Your task to perform on an android device: What's the weather going to be this weekend? Image 0: 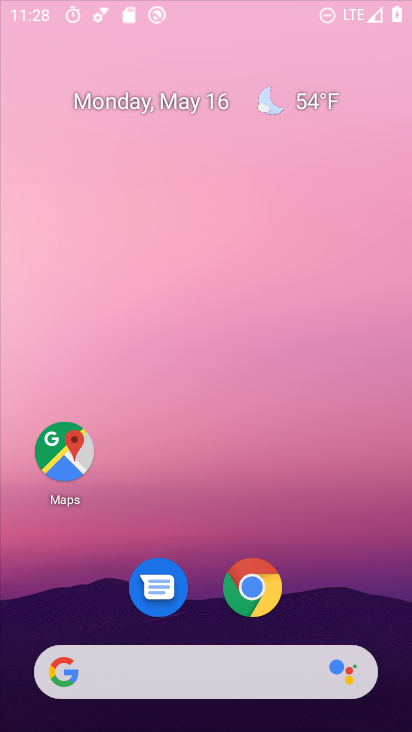
Step 0: click (213, 78)
Your task to perform on an android device: What's the weather going to be this weekend? Image 1: 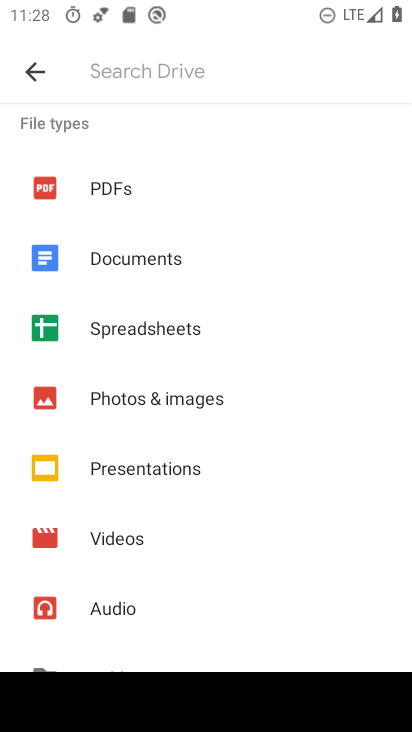
Step 1: click (219, 81)
Your task to perform on an android device: What's the weather going to be this weekend? Image 2: 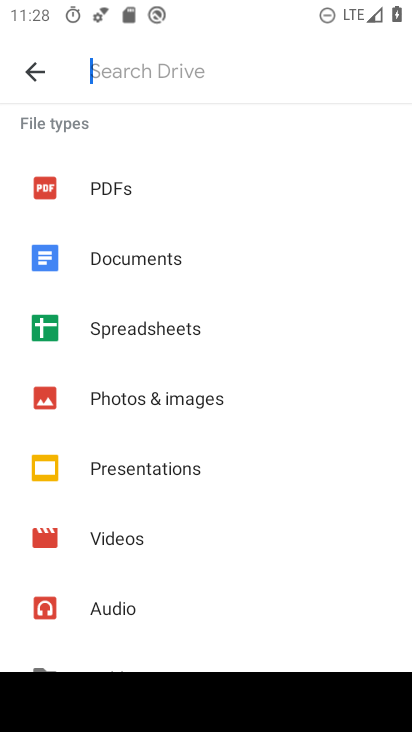
Step 2: drag from (218, 121) to (220, 38)
Your task to perform on an android device: What's the weather going to be this weekend? Image 3: 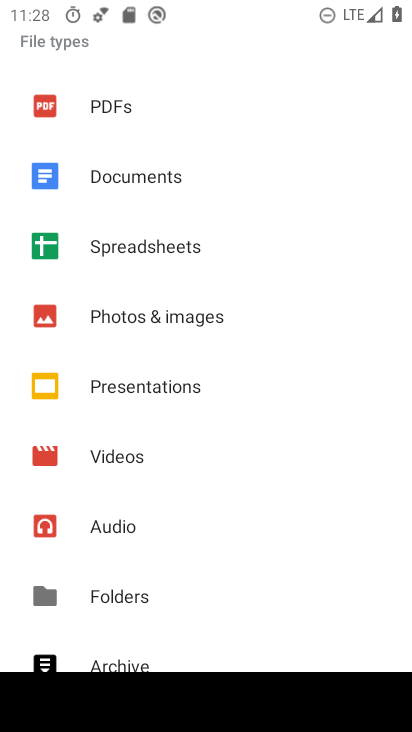
Step 3: drag from (181, 569) to (222, 27)
Your task to perform on an android device: What's the weather going to be this weekend? Image 4: 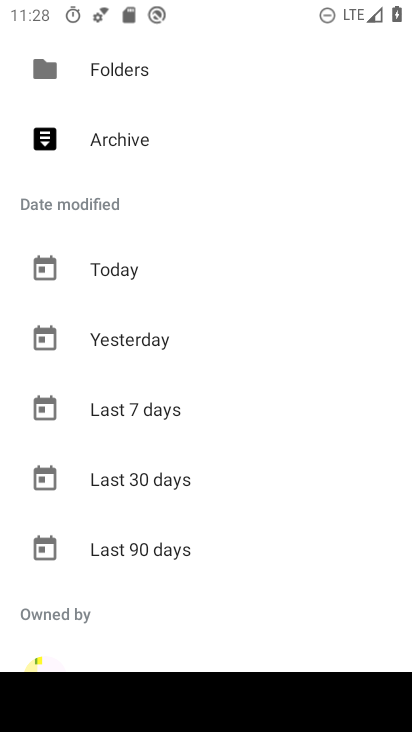
Step 4: press home button
Your task to perform on an android device: What's the weather going to be this weekend? Image 5: 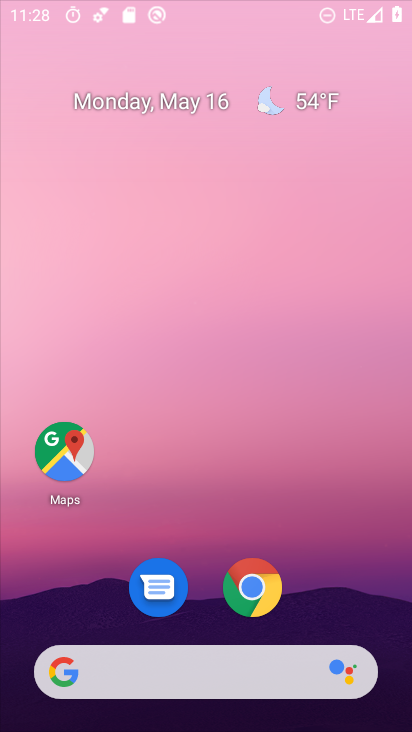
Step 5: drag from (168, 610) to (269, 1)
Your task to perform on an android device: What's the weather going to be this weekend? Image 6: 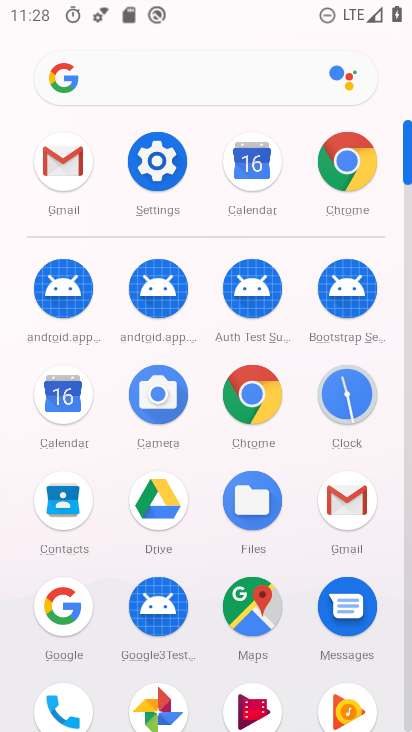
Step 6: click (163, 85)
Your task to perform on an android device: What's the weather going to be this weekend? Image 7: 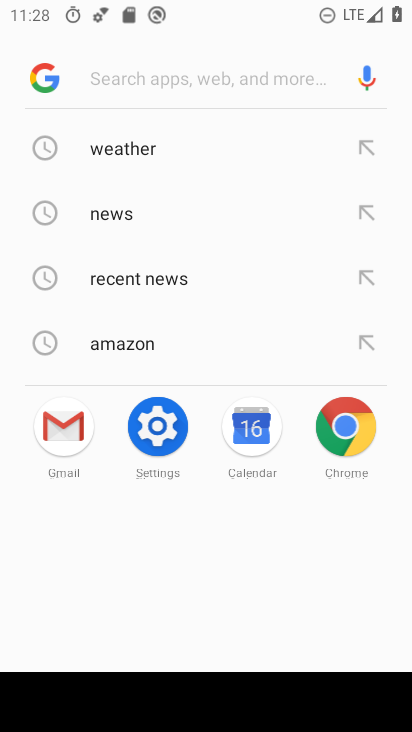
Step 7: type "weather going to be this weekend"
Your task to perform on an android device: What's the weather going to be this weekend? Image 8: 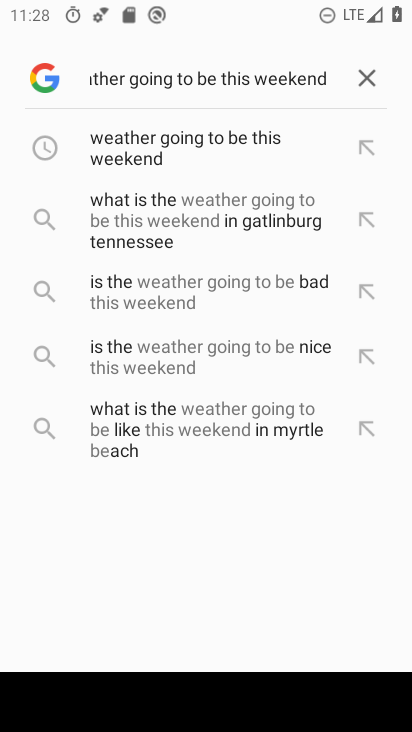
Step 8: click (135, 140)
Your task to perform on an android device: What's the weather going to be this weekend? Image 9: 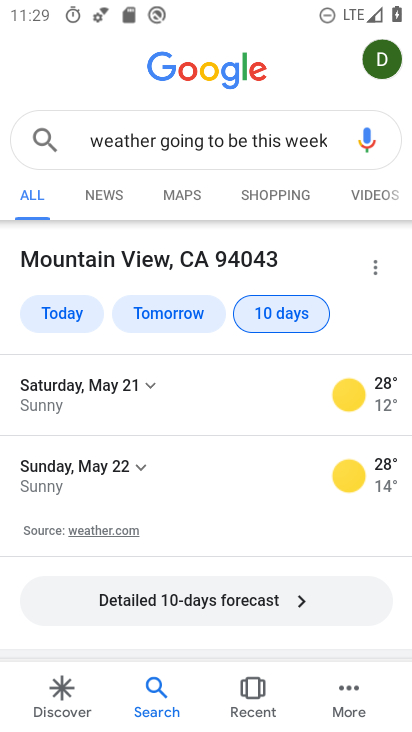
Step 9: task complete